Your task to perform on an android device: Search for the best rated Bluetooth earbuds on Ali express Image 0: 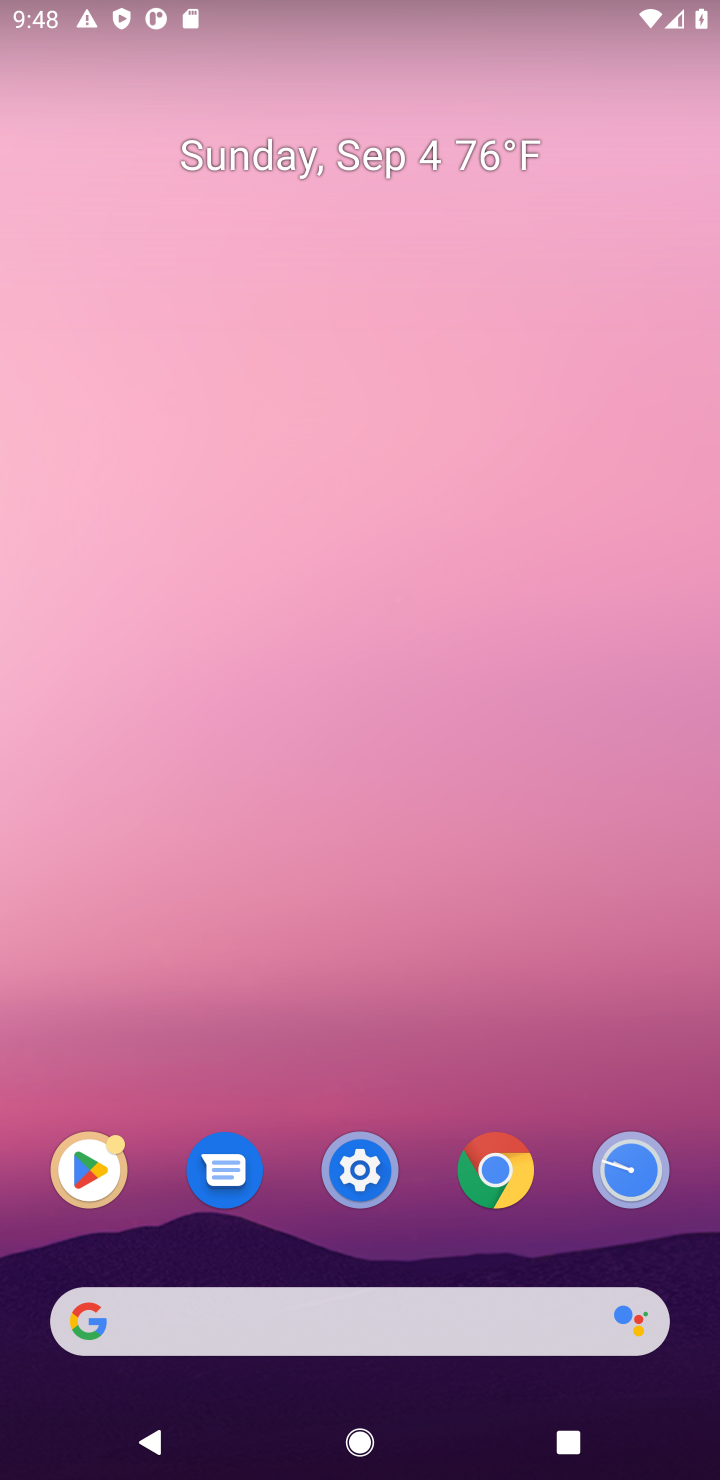
Step 0: click (401, 1305)
Your task to perform on an android device: Search for the best rated Bluetooth earbuds on Ali express Image 1: 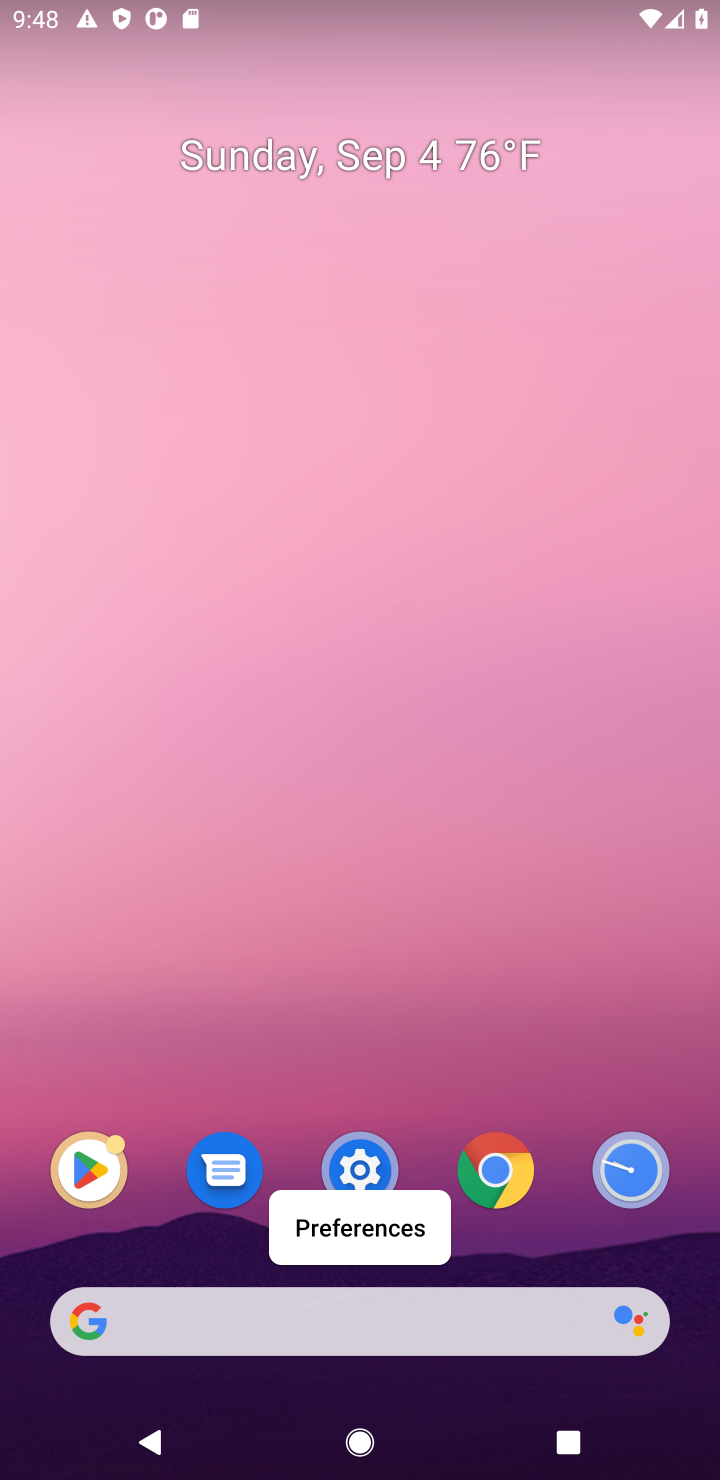
Step 1: click (401, 1335)
Your task to perform on an android device: Search for the best rated Bluetooth earbuds on Ali express Image 2: 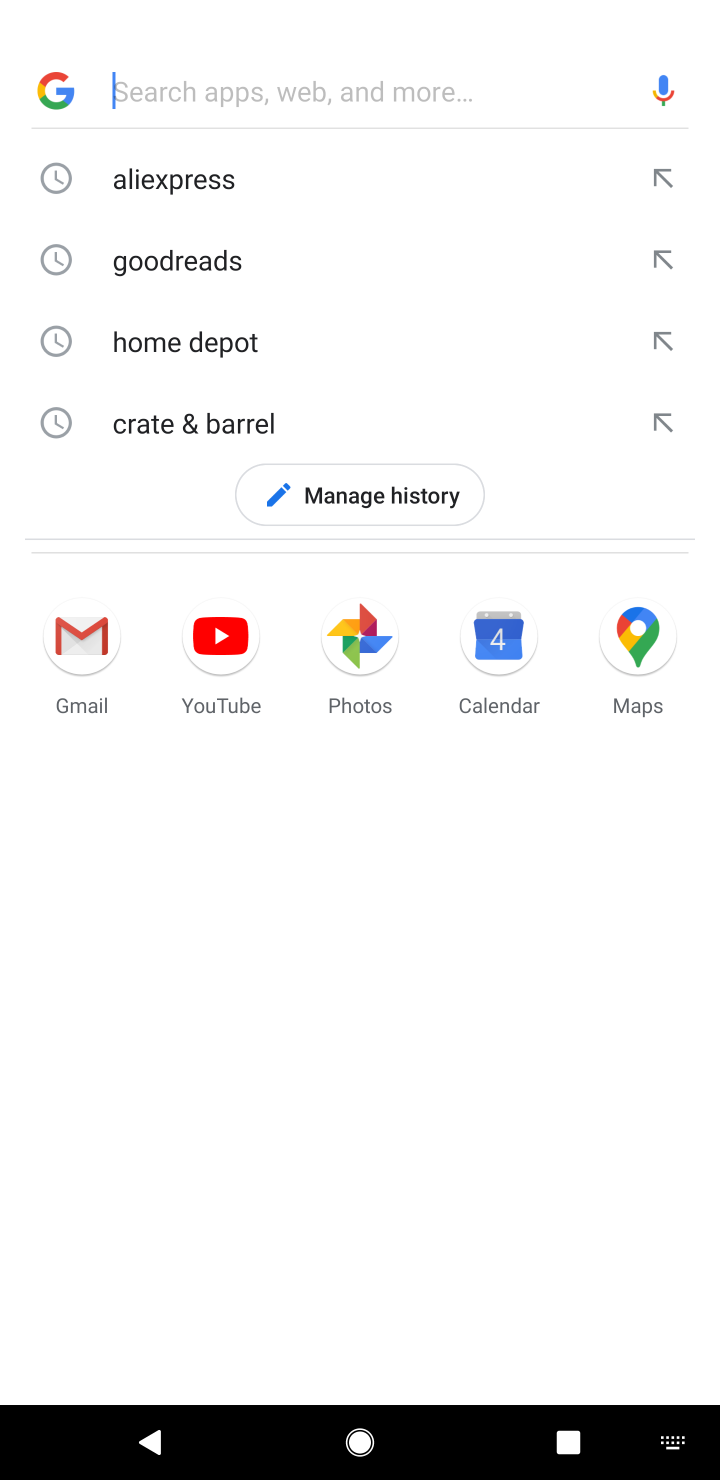
Step 2: click (181, 165)
Your task to perform on an android device: Search for the best rated Bluetooth earbuds on Ali express Image 3: 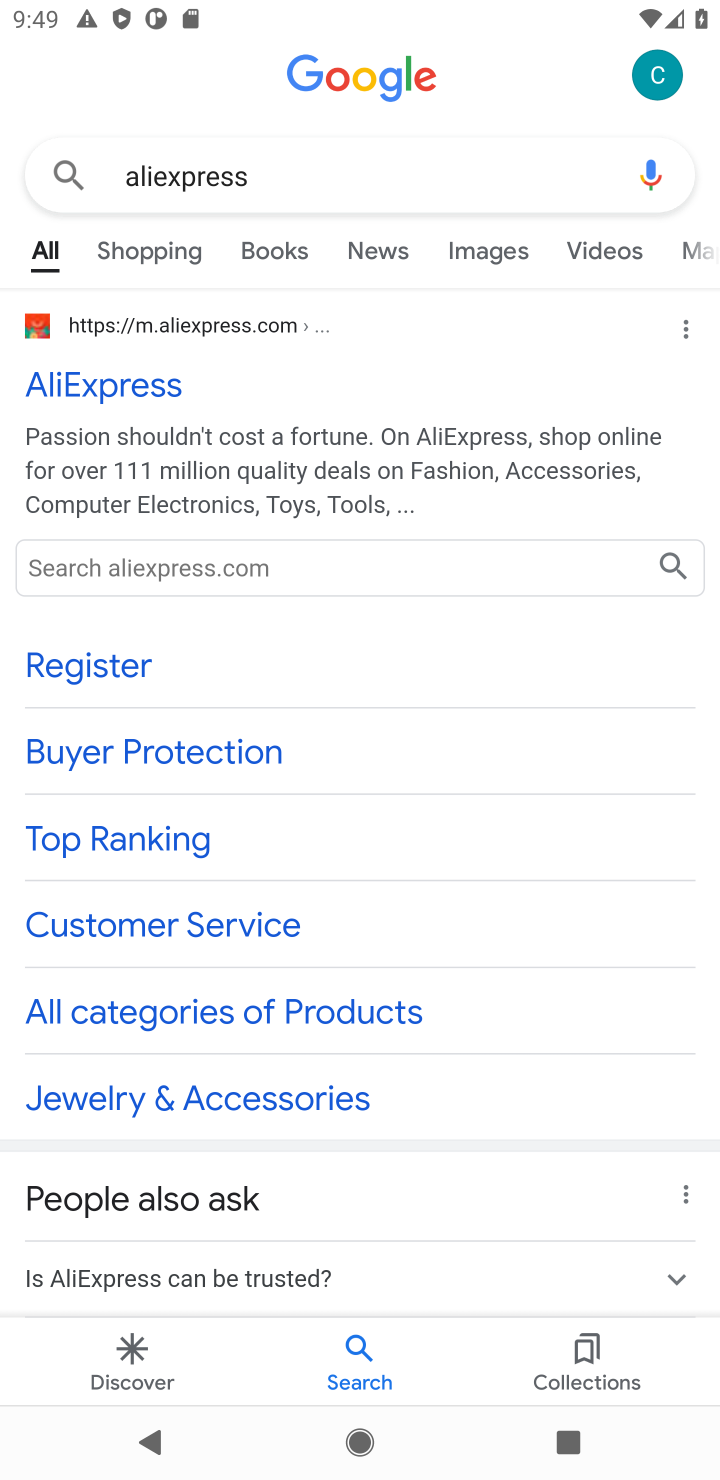
Step 3: click (159, 377)
Your task to perform on an android device: Search for the best rated Bluetooth earbuds on Ali express Image 4: 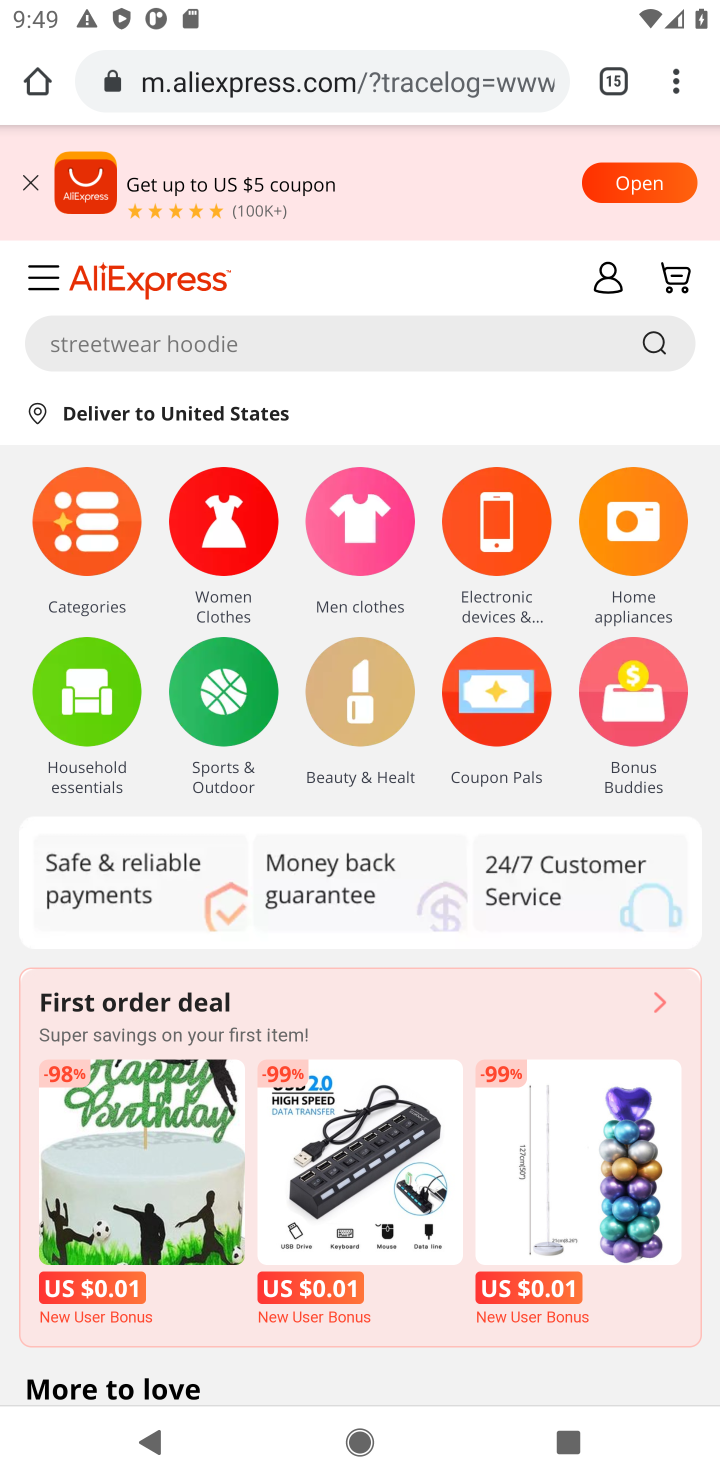
Step 4: click (237, 327)
Your task to perform on an android device: Search for the best rated Bluetooth earbuds on Ali express Image 5: 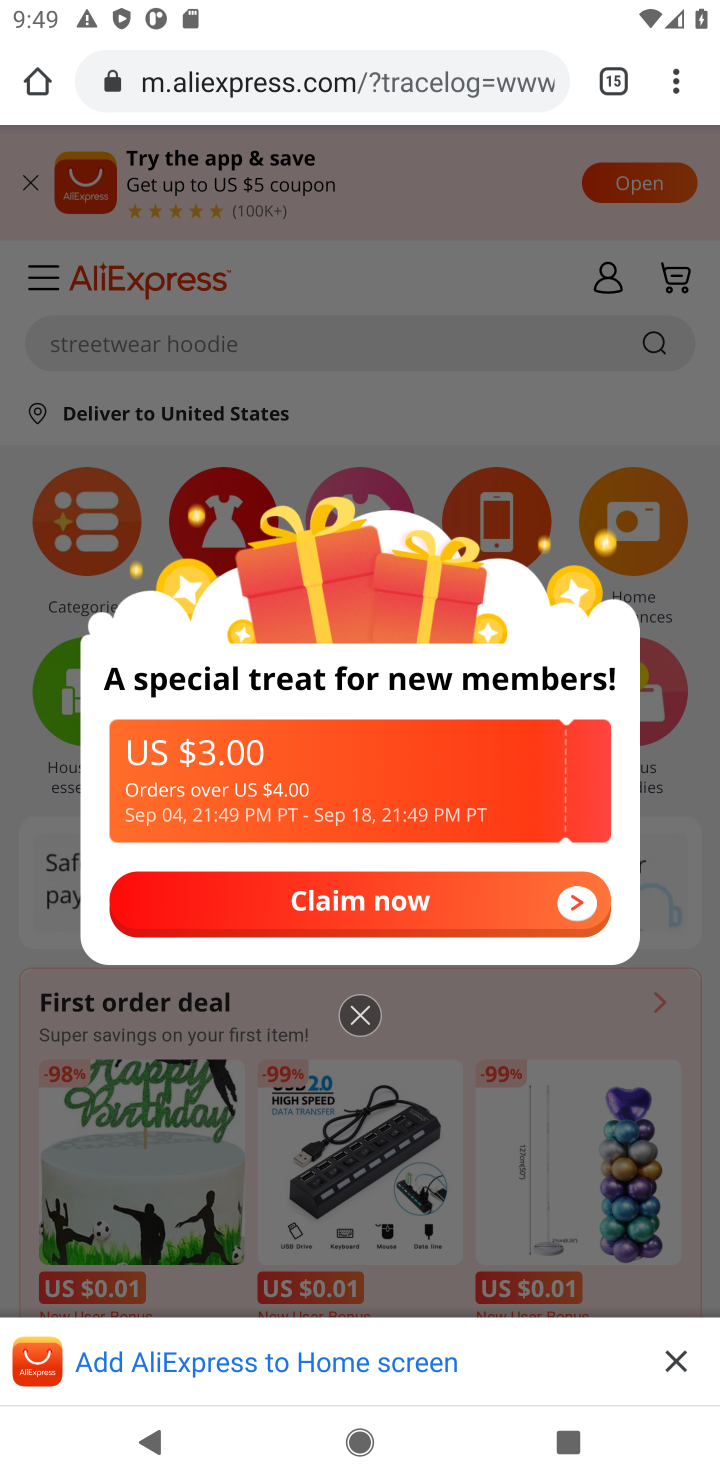
Step 5: click (249, 341)
Your task to perform on an android device: Search for the best rated Bluetooth earbuds on Ali express Image 6: 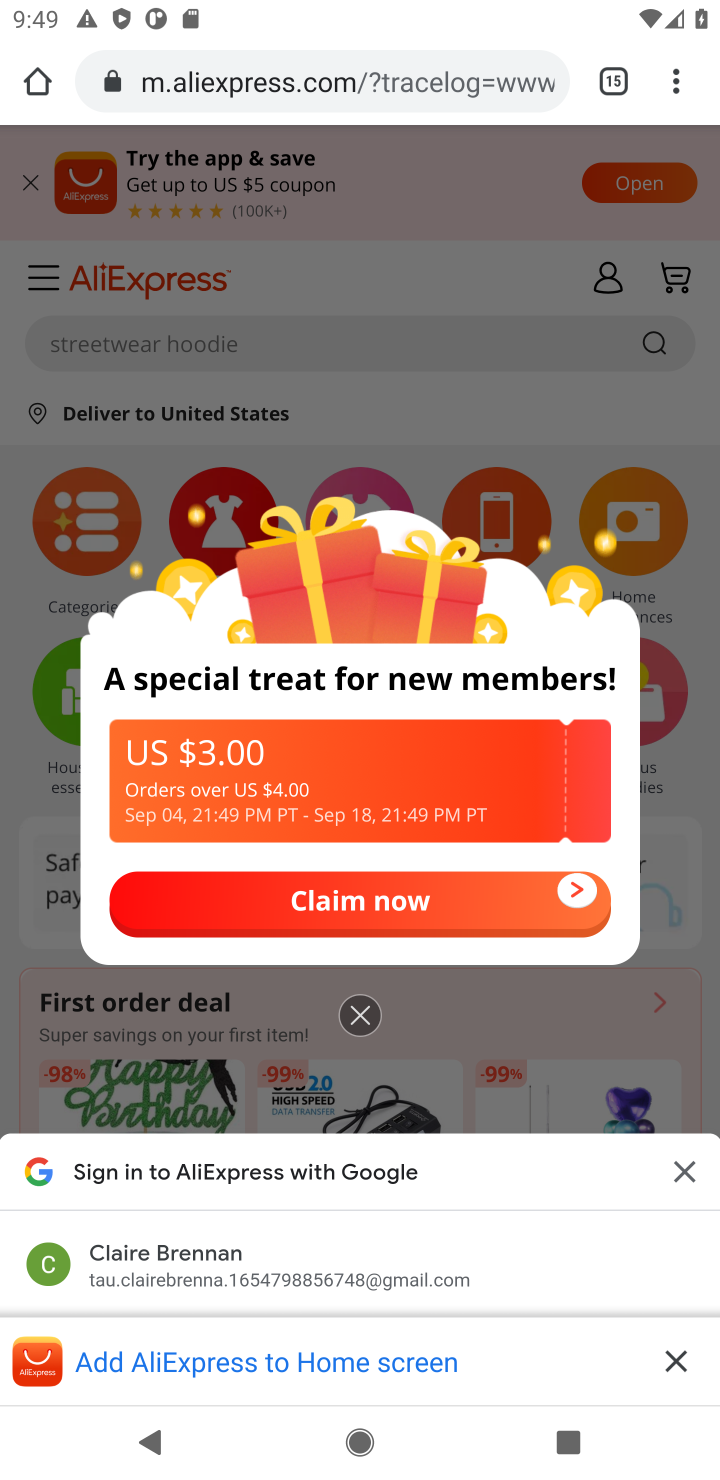
Step 6: click (352, 1006)
Your task to perform on an android device: Search for the best rated Bluetooth earbuds on Ali express Image 7: 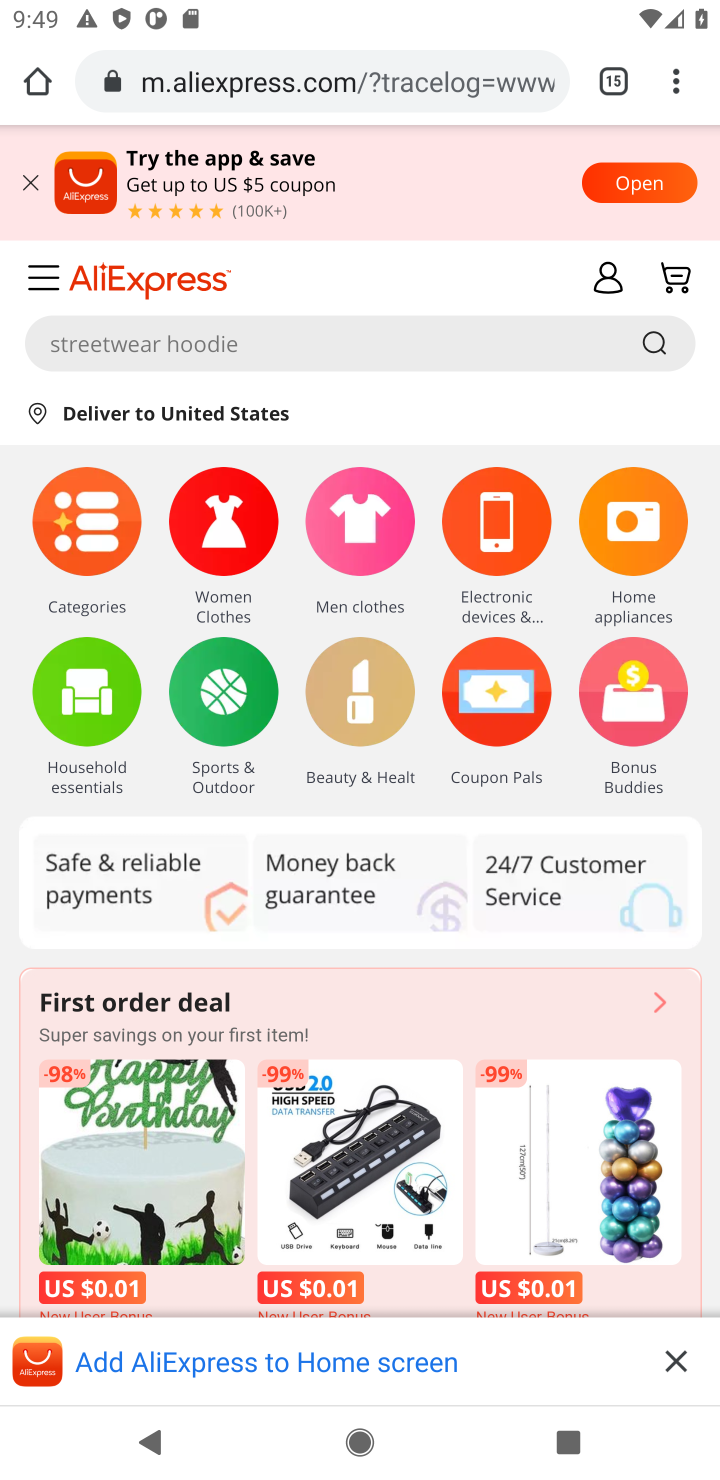
Step 7: click (244, 329)
Your task to perform on an android device: Search for the best rated Bluetooth earbuds on Ali express Image 8: 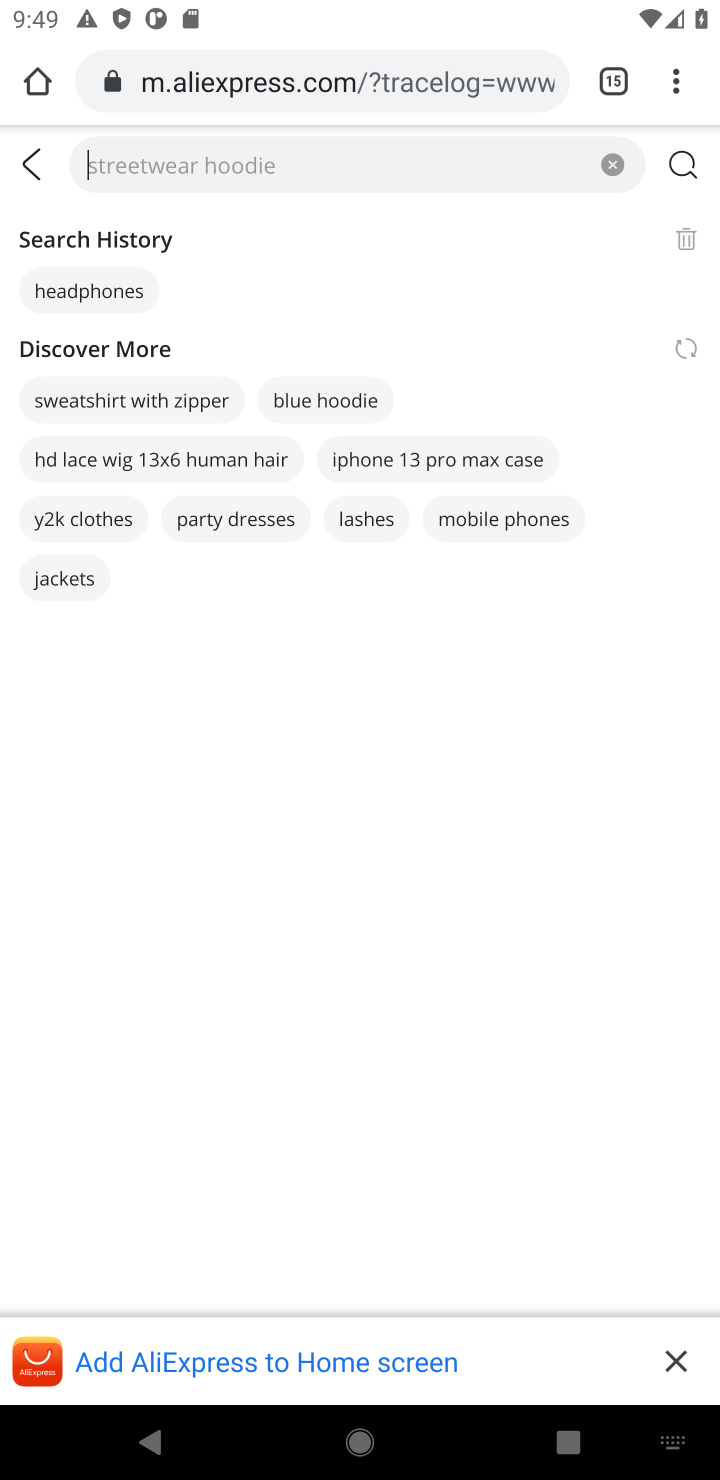
Step 8: type "Bluetooth earbuds "
Your task to perform on an android device: Search for the best rated Bluetooth earbuds on Ali express Image 9: 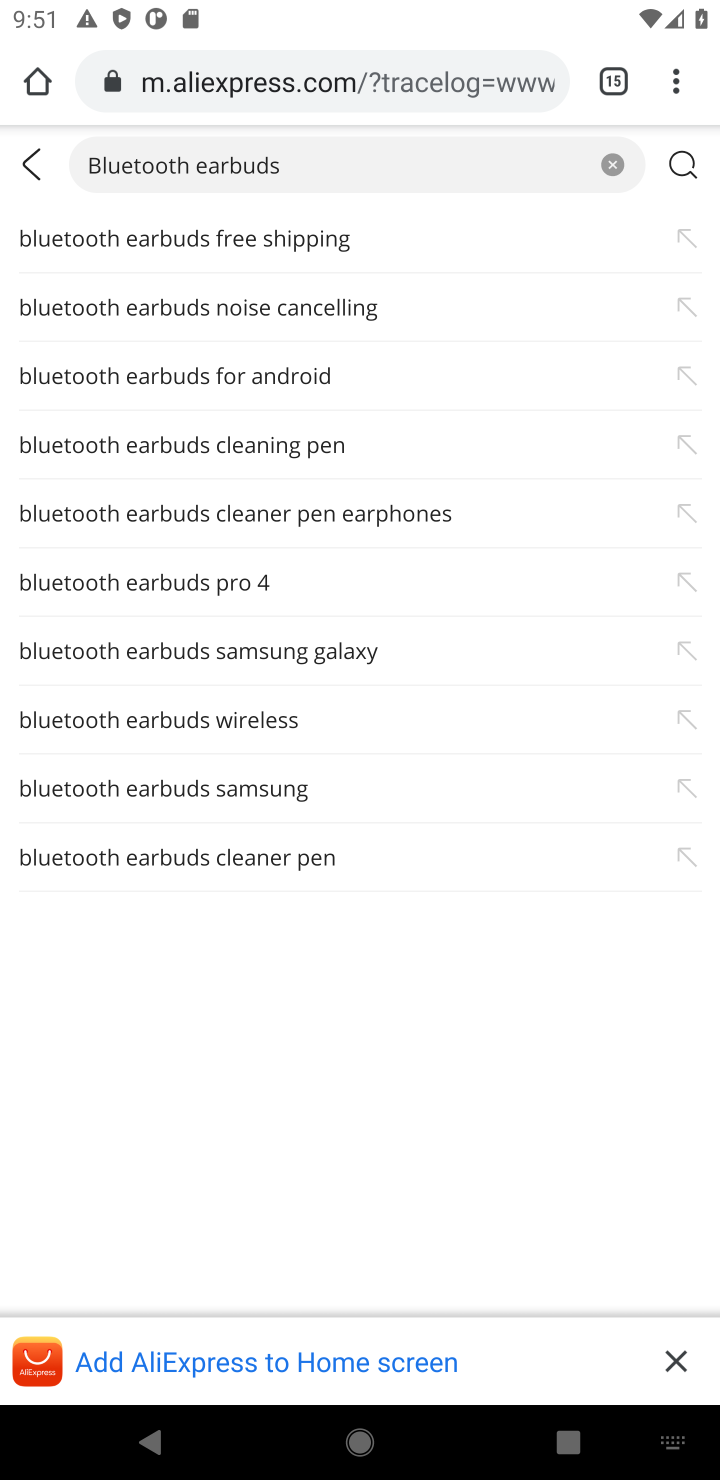
Step 9: click (208, 220)
Your task to perform on an android device: Search for the best rated Bluetooth earbuds on Ali express Image 10: 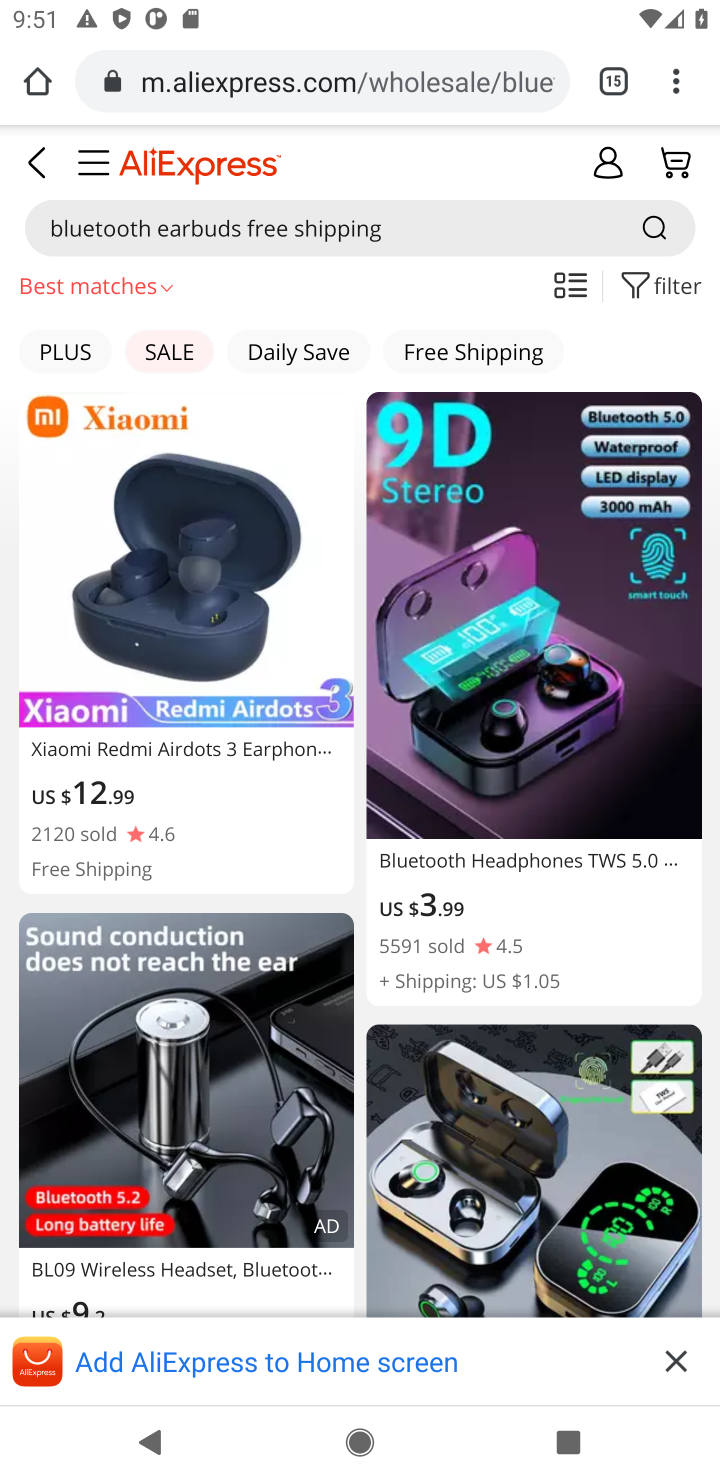
Step 10: task complete